Your task to perform on an android device: Play the last video I watched on Youtube Image 0: 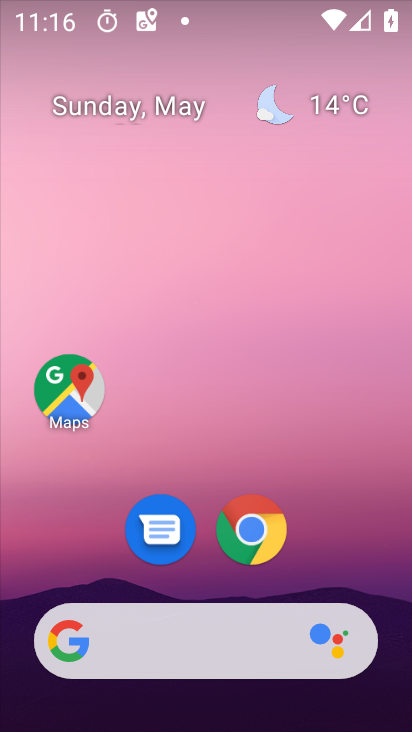
Step 0: drag from (196, 624) to (277, 5)
Your task to perform on an android device: Play the last video I watched on Youtube Image 1: 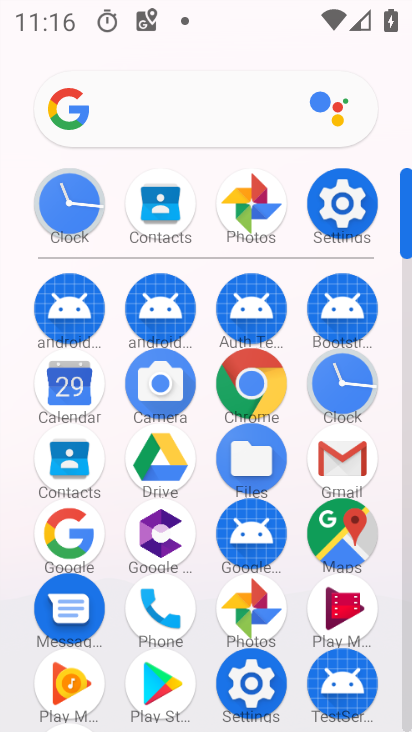
Step 1: drag from (331, 638) to (408, 30)
Your task to perform on an android device: Play the last video I watched on Youtube Image 2: 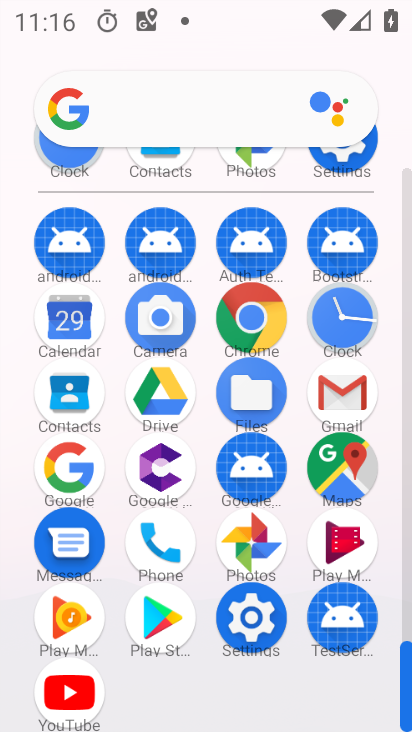
Step 2: click (81, 689)
Your task to perform on an android device: Play the last video I watched on Youtube Image 3: 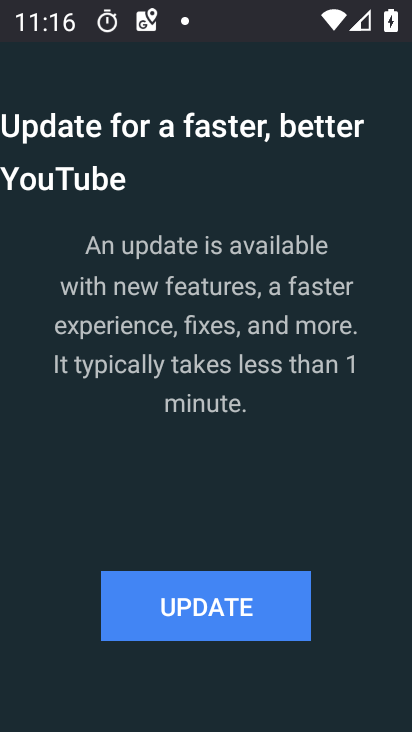
Step 3: press home button
Your task to perform on an android device: Play the last video I watched on Youtube Image 4: 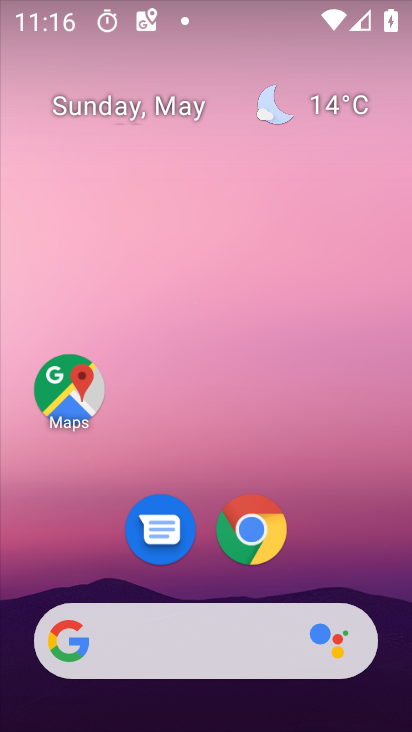
Step 4: drag from (170, 606) to (21, 102)
Your task to perform on an android device: Play the last video I watched on Youtube Image 5: 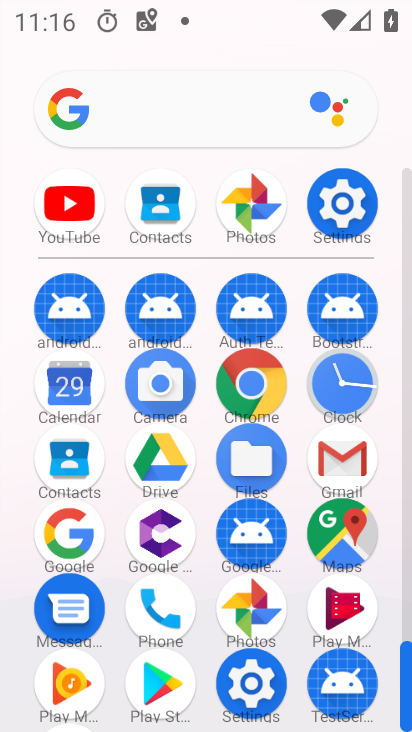
Step 5: drag from (228, 623) to (196, 0)
Your task to perform on an android device: Play the last video I watched on Youtube Image 6: 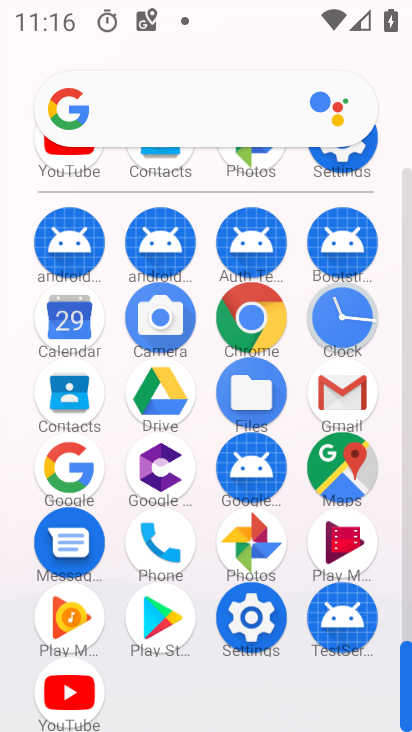
Step 6: click (60, 683)
Your task to perform on an android device: Play the last video I watched on Youtube Image 7: 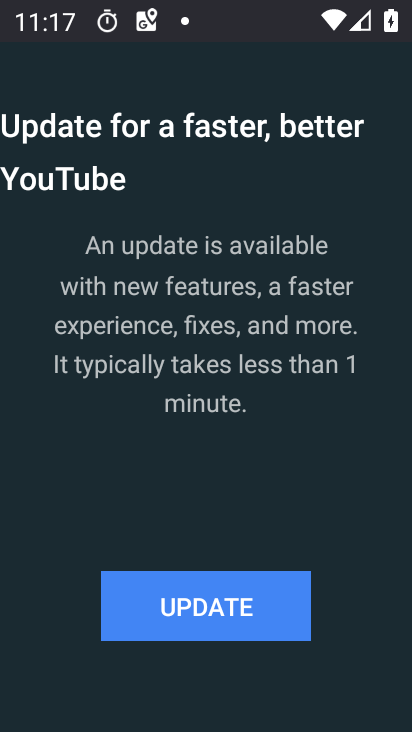
Step 7: click (252, 624)
Your task to perform on an android device: Play the last video I watched on Youtube Image 8: 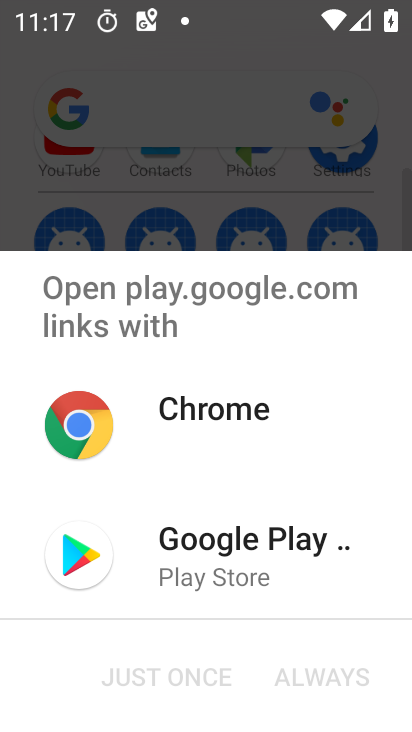
Step 8: click (213, 554)
Your task to perform on an android device: Play the last video I watched on Youtube Image 9: 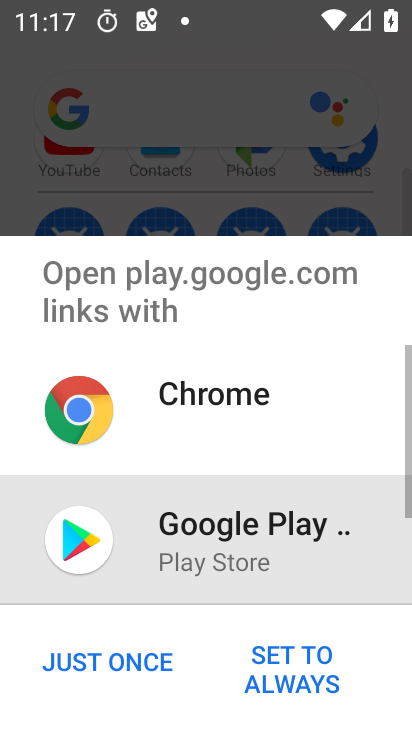
Step 9: click (137, 669)
Your task to perform on an android device: Play the last video I watched on Youtube Image 10: 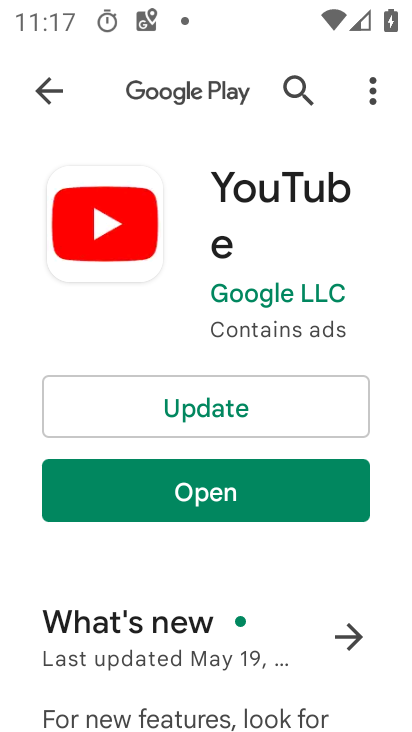
Step 10: click (214, 402)
Your task to perform on an android device: Play the last video I watched on Youtube Image 11: 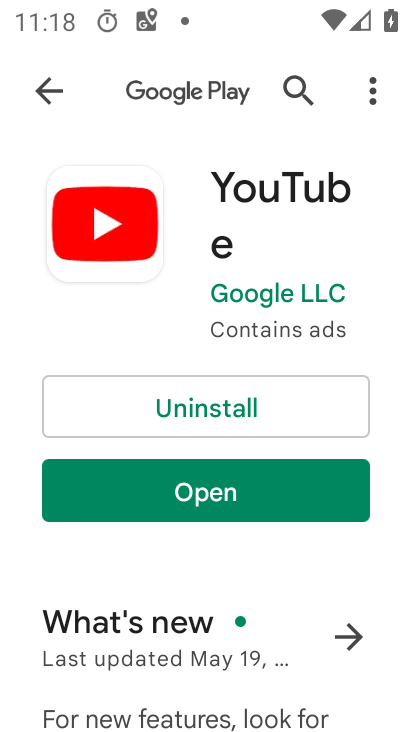
Step 11: click (295, 493)
Your task to perform on an android device: Play the last video I watched on Youtube Image 12: 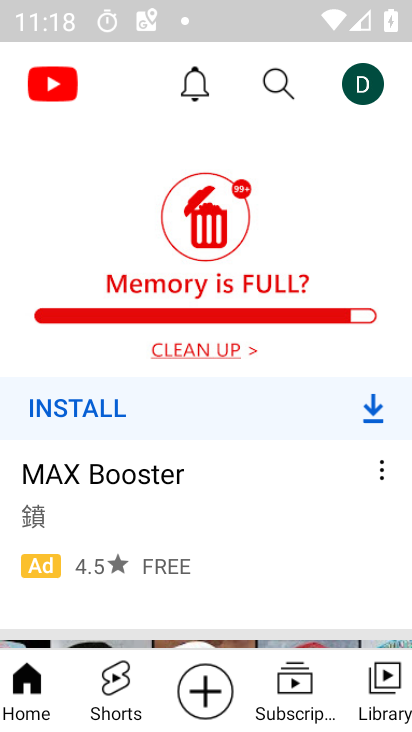
Step 12: click (377, 667)
Your task to perform on an android device: Play the last video I watched on Youtube Image 13: 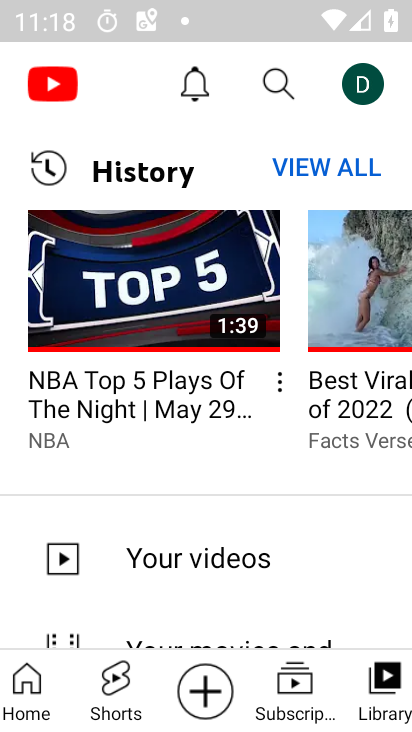
Step 13: click (165, 353)
Your task to perform on an android device: Play the last video I watched on Youtube Image 14: 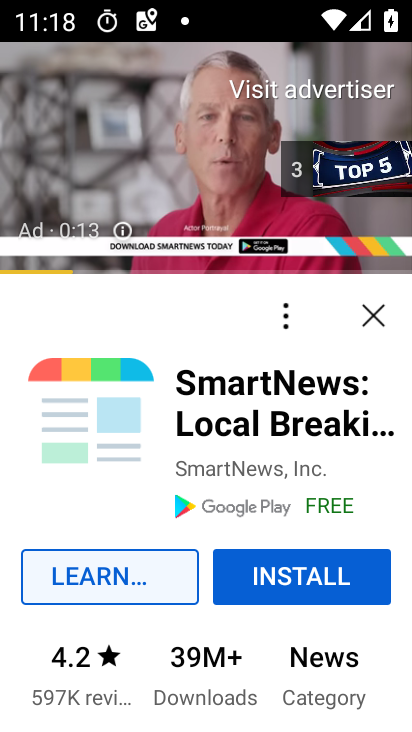
Step 14: task complete